Your task to perform on an android device: Open Wikipedia Image 0: 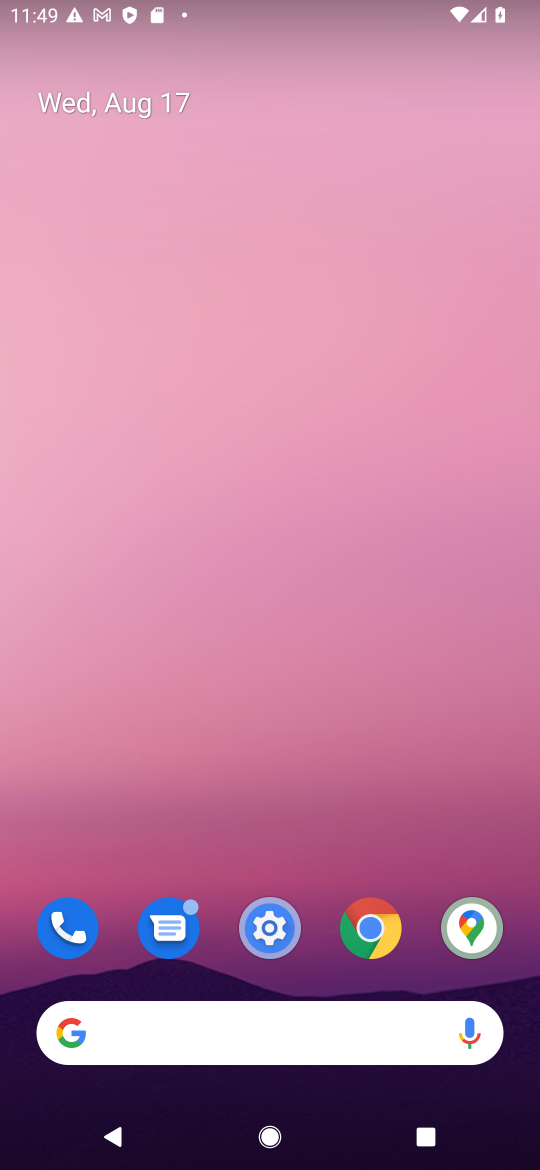
Step 0: click (376, 905)
Your task to perform on an android device: Open Wikipedia Image 1: 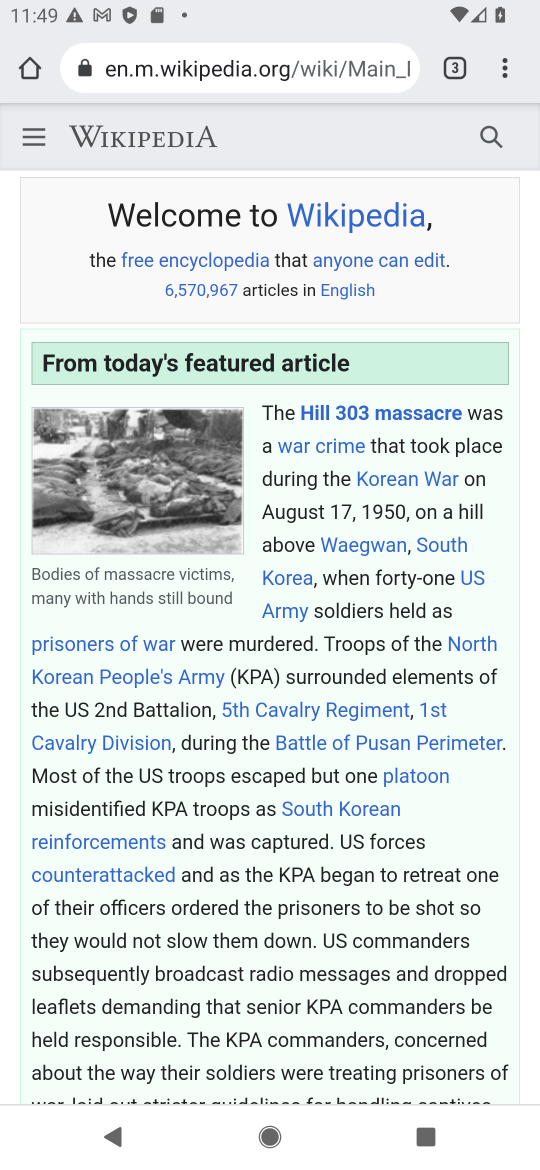
Step 1: task complete